Your task to perform on an android device: Clear the cart on target. Search for usb-c to usb-a on target, select the first entry, add it to the cart, then select checkout. Image 0: 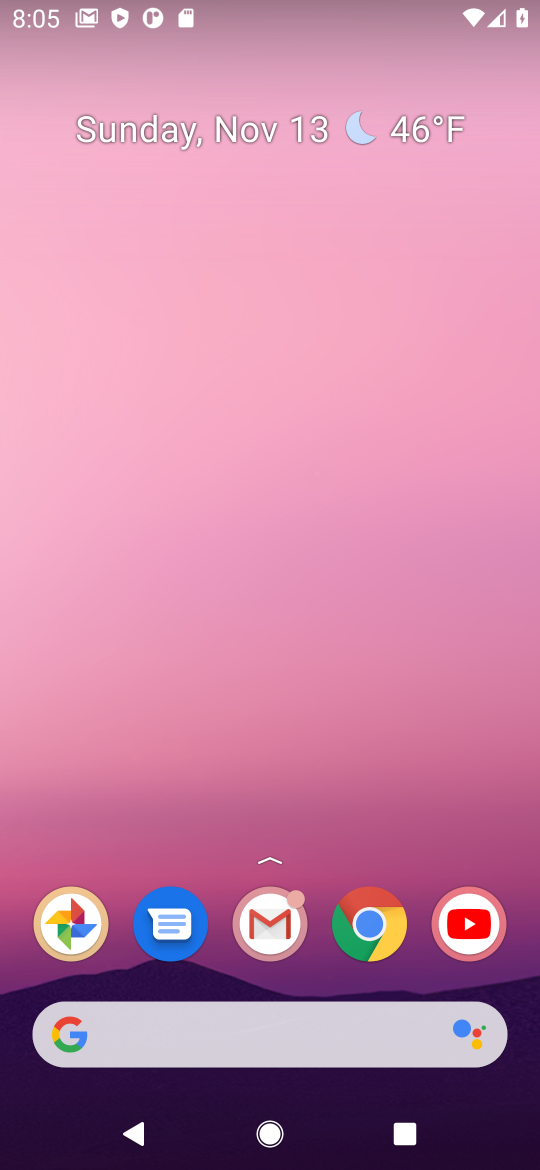
Step 0: click (358, 919)
Your task to perform on an android device: Clear the cart on target. Search for usb-c to usb-a on target, select the first entry, add it to the cart, then select checkout. Image 1: 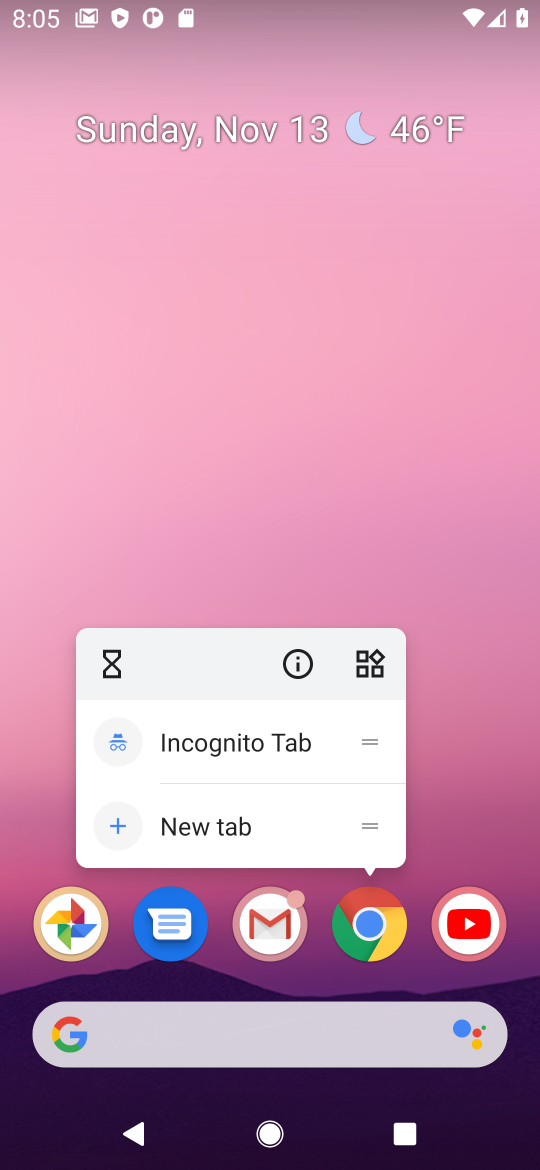
Step 1: click (364, 923)
Your task to perform on an android device: Clear the cart on target. Search for usb-c to usb-a on target, select the first entry, add it to the cart, then select checkout. Image 2: 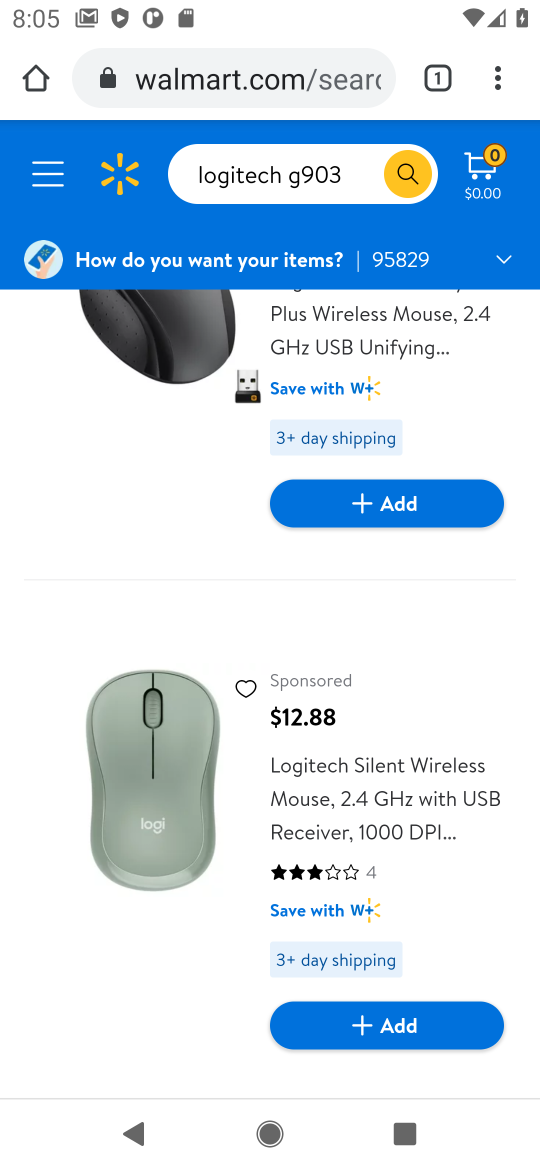
Step 2: click (297, 75)
Your task to perform on an android device: Clear the cart on target. Search for usb-c to usb-a on target, select the first entry, add it to the cart, then select checkout. Image 3: 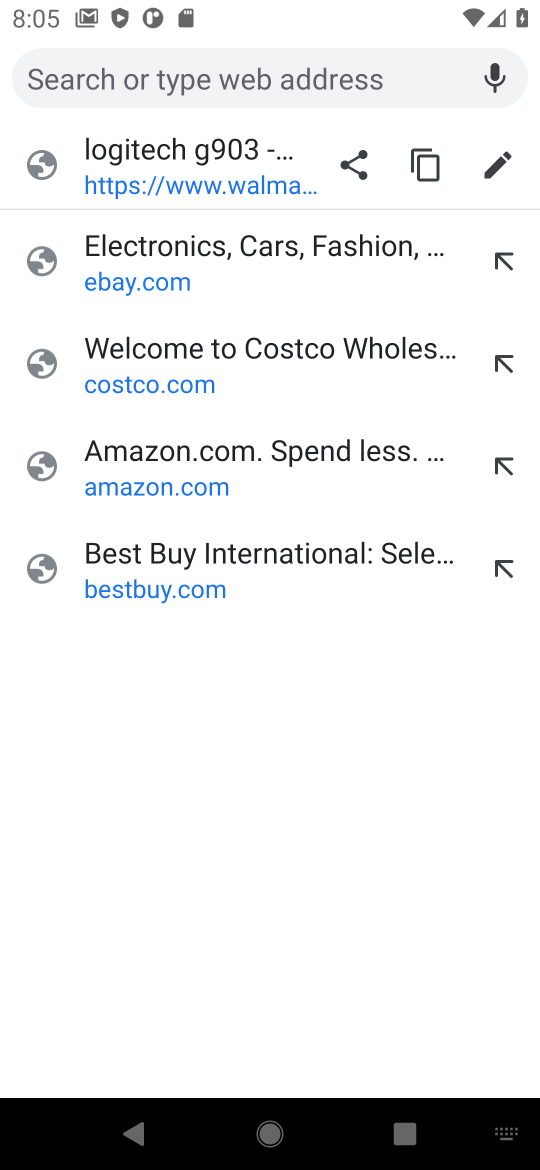
Step 3: type " target"
Your task to perform on an android device: Clear the cart on target. Search for usb-c to usb-a on target, select the first entry, add it to the cart, then select checkout. Image 4: 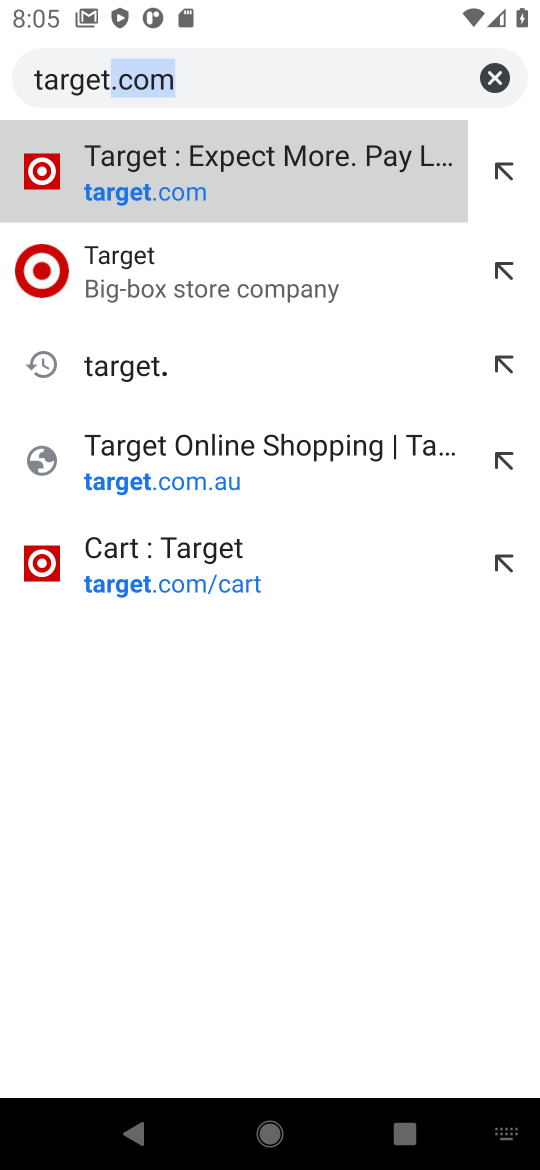
Step 4: press enter
Your task to perform on an android device: Clear the cart on target. Search for usb-c to usb-a on target, select the first entry, add it to the cart, then select checkout. Image 5: 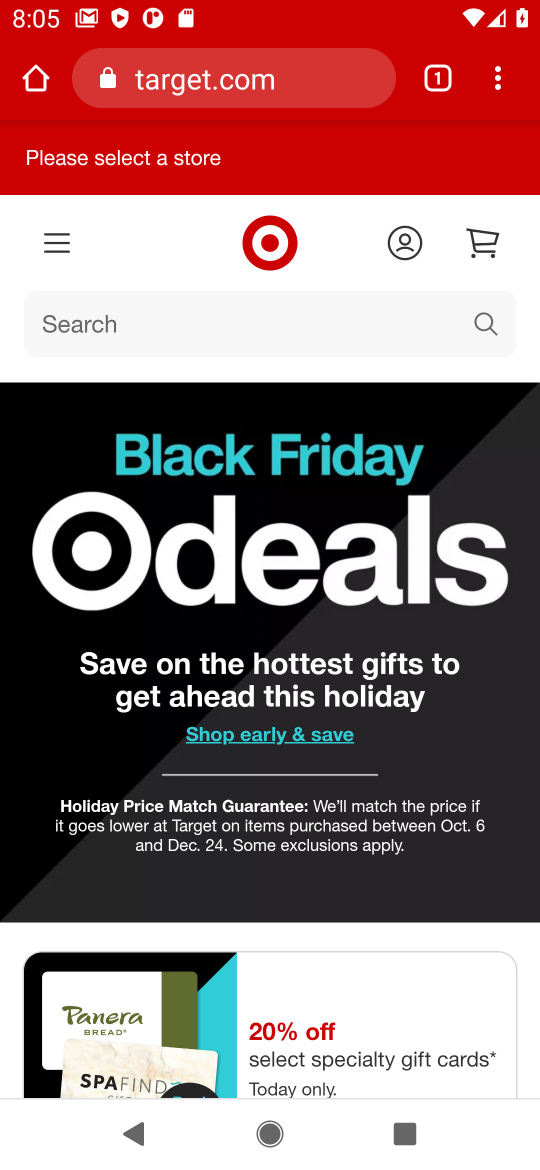
Step 5: drag from (364, 995) to (472, 319)
Your task to perform on an android device: Clear the cart on target. Search for usb-c to usb-a on target, select the first entry, add it to the cart, then select checkout. Image 6: 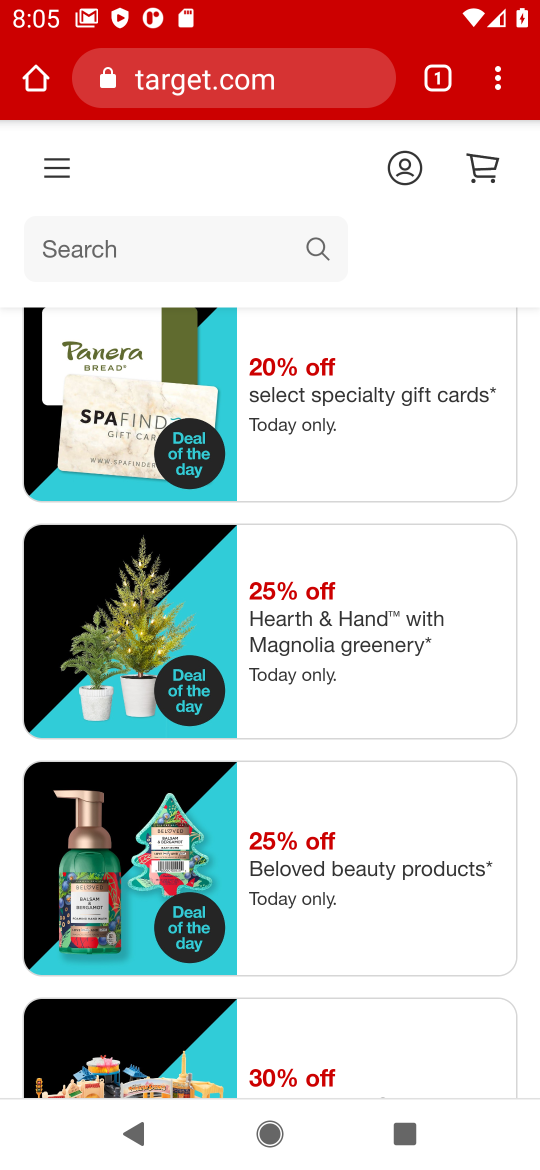
Step 6: drag from (457, 338) to (309, 1142)
Your task to perform on an android device: Clear the cart on target. Search for usb-c to usb-a on target, select the first entry, add it to the cart, then select checkout. Image 7: 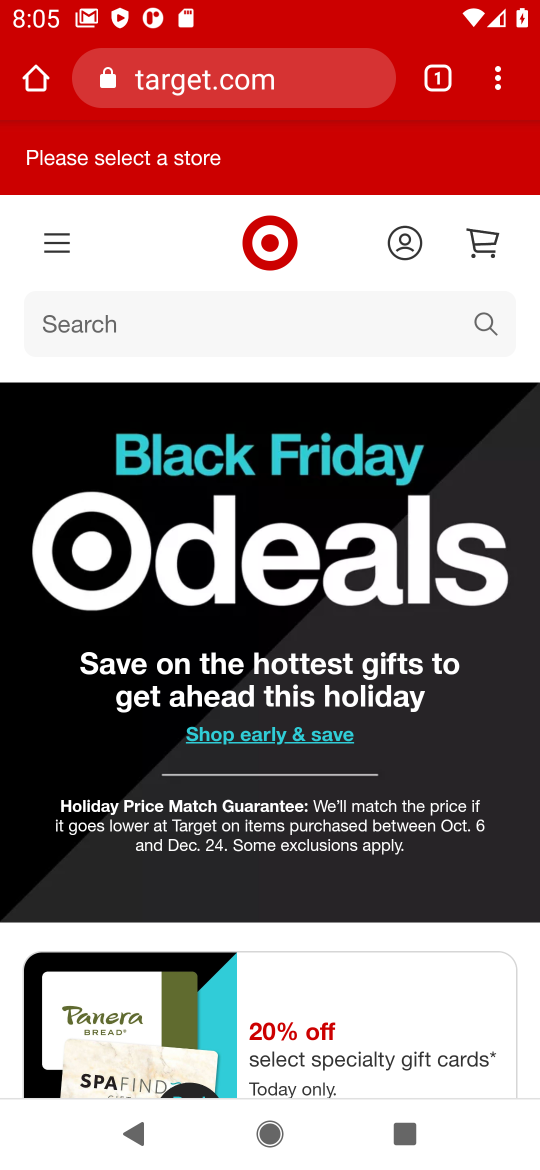
Step 7: click (206, 320)
Your task to perform on an android device: Clear the cart on target. Search for usb-c to usb-a on target, select the first entry, add it to the cart, then select checkout. Image 8: 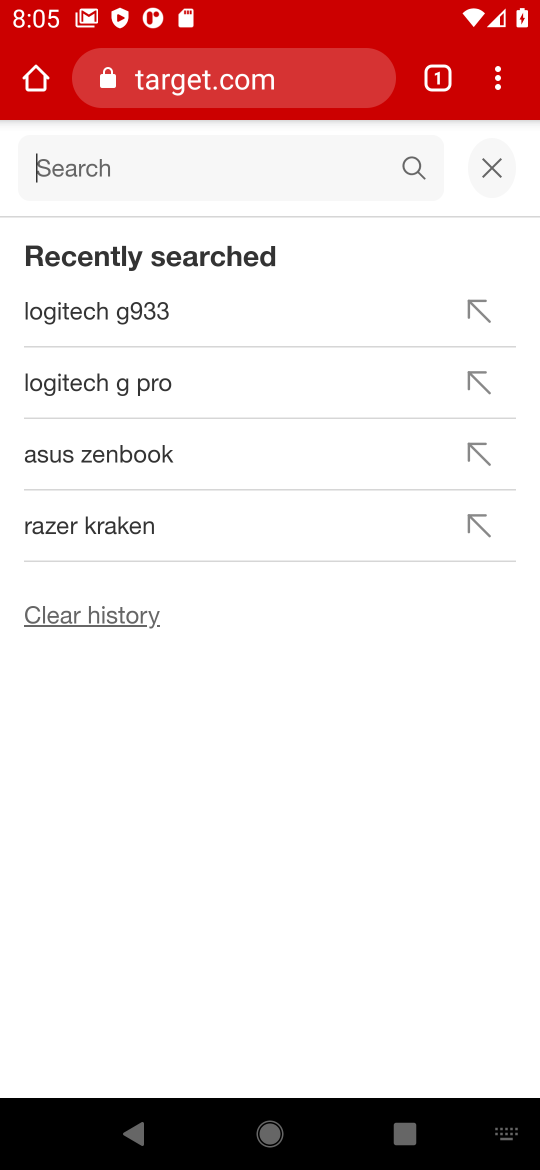
Step 8: type " usb-c to usb-a "
Your task to perform on an android device: Clear the cart on target. Search for usb-c to usb-a on target, select the first entry, add it to the cart, then select checkout. Image 9: 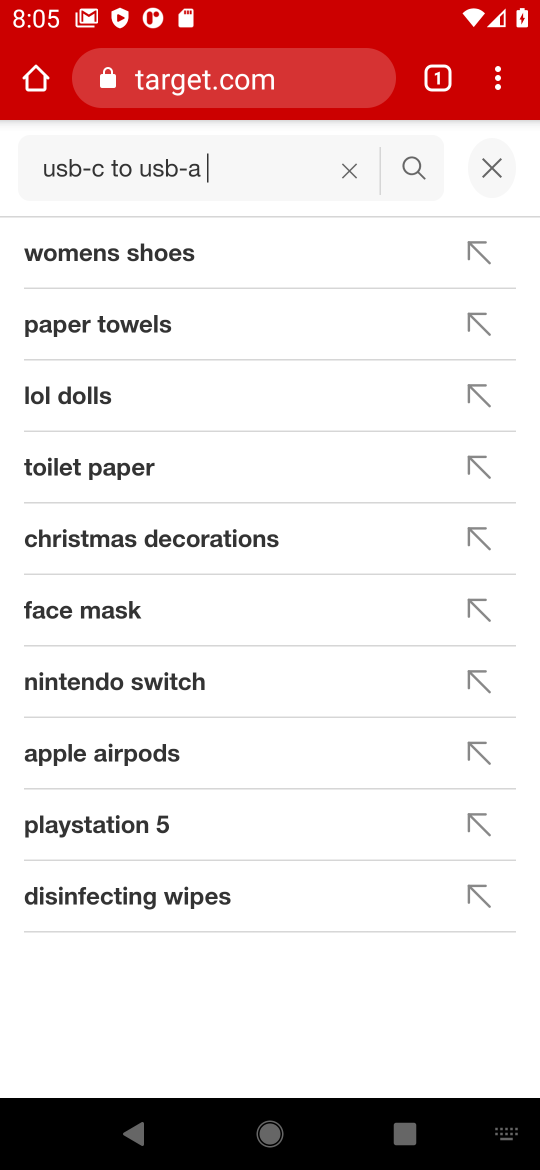
Step 9: press enter
Your task to perform on an android device: Clear the cart on target. Search for usb-c to usb-a on target, select the first entry, add it to the cart, then select checkout. Image 10: 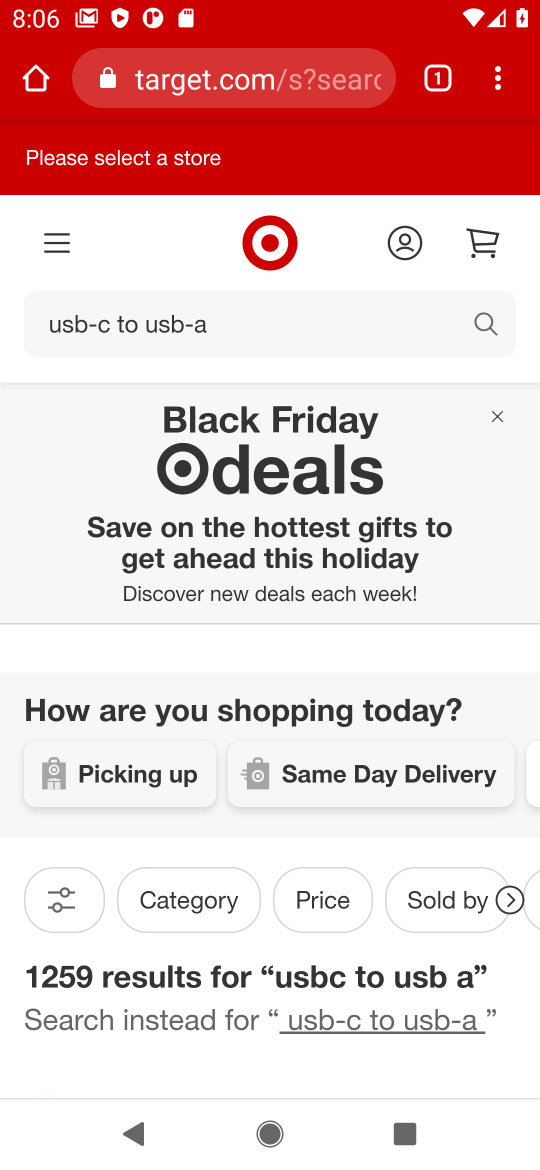
Step 10: drag from (236, 1034) to (363, 484)
Your task to perform on an android device: Clear the cart on target. Search for usb-c to usb-a on target, select the first entry, add it to the cart, then select checkout. Image 11: 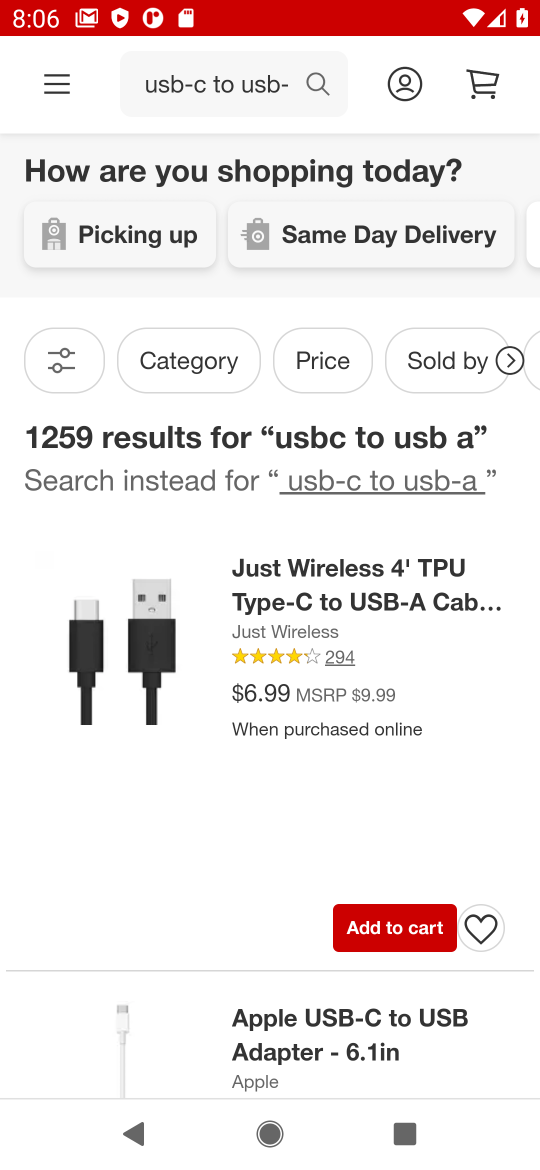
Step 11: click (339, 614)
Your task to perform on an android device: Clear the cart on target. Search for usb-c to usb-a on target, select the first entry, add it to the cart, then select checkout. Image 12: 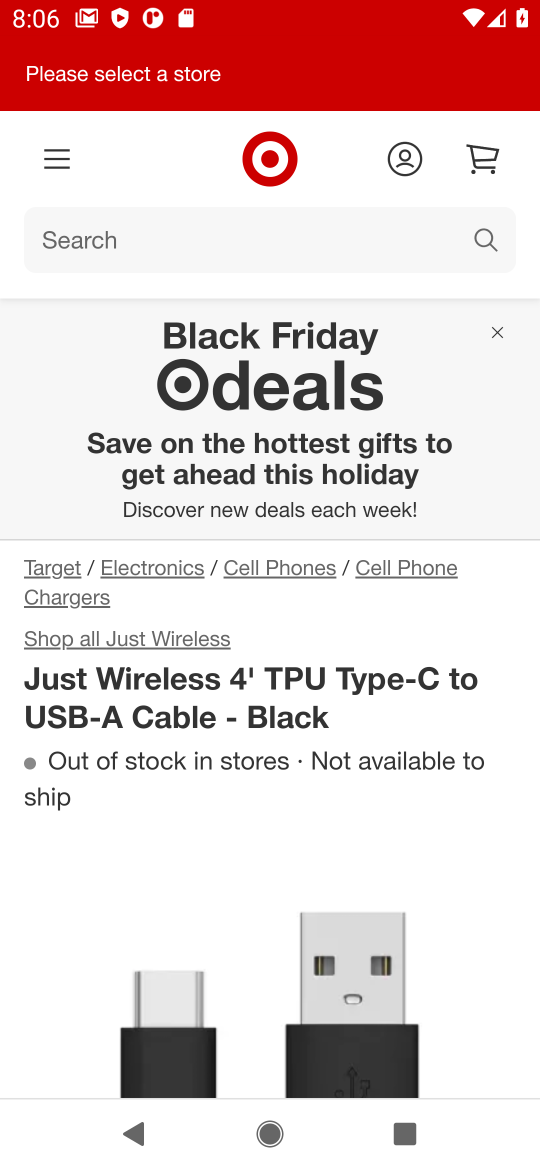
Step 12: drag from (235, 935) to (503, 296)
Your task to perform on an android device: Clear the cart on target. Search for usb-c to usb-a on target, select the first entry, add it to the cart, then select checkout. Image 13: 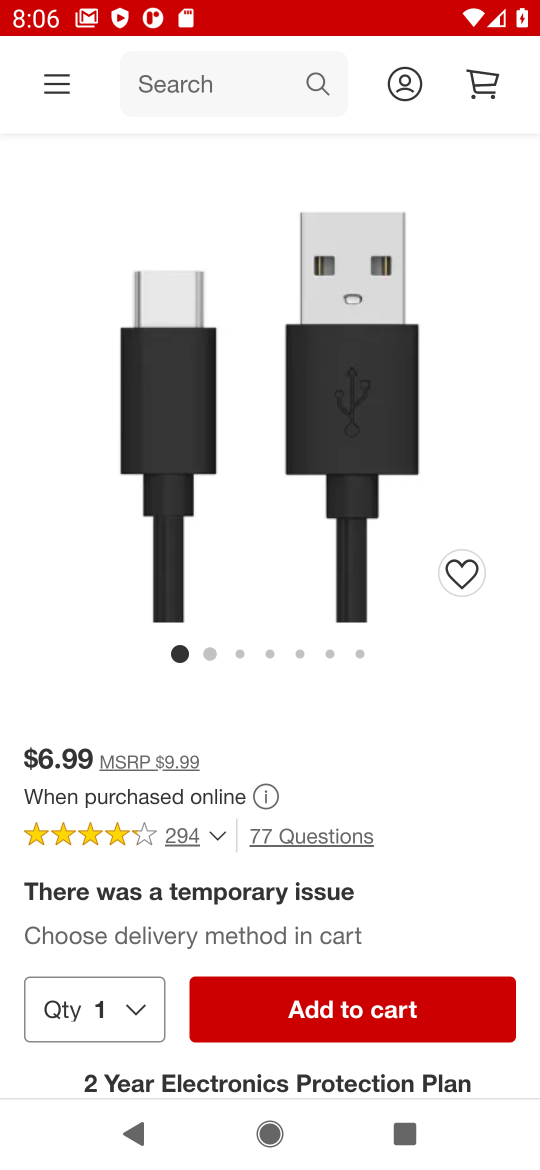
Step 13: click (354, 1015)
Your task to perform on an android device: Clear the cart on target. Search for usb-c to usb-a on target, select the first entry, add it to the cart, then select checkout. Image 14: 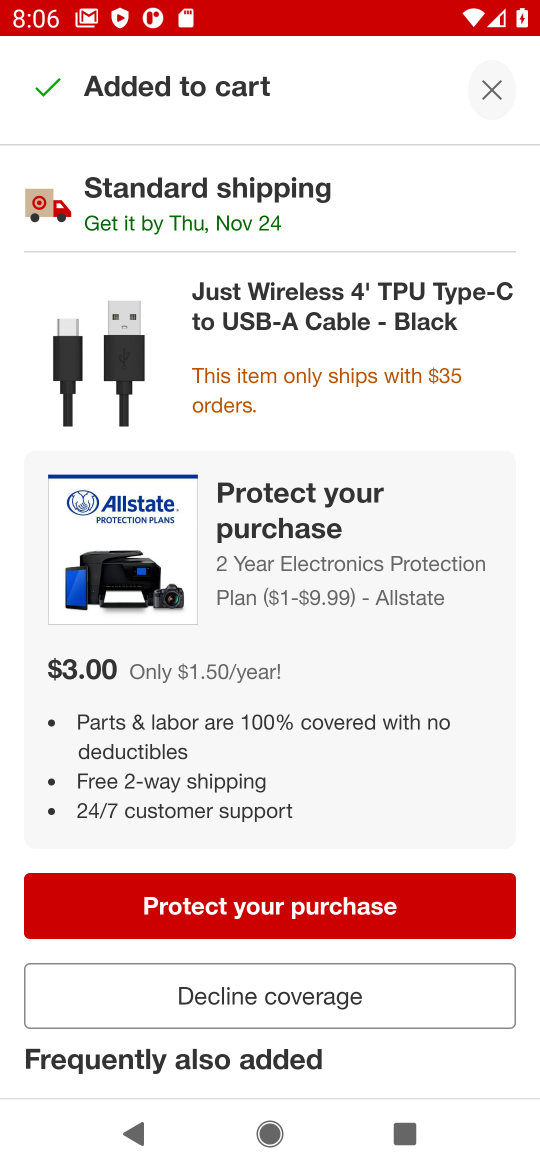
Step 14: click (312, 991)
Your task to perform on an android device: Clear the cart on target. Search for usb-c to usb-a on target, select the first entry, add it to the cart, then select checkout. Image 15: 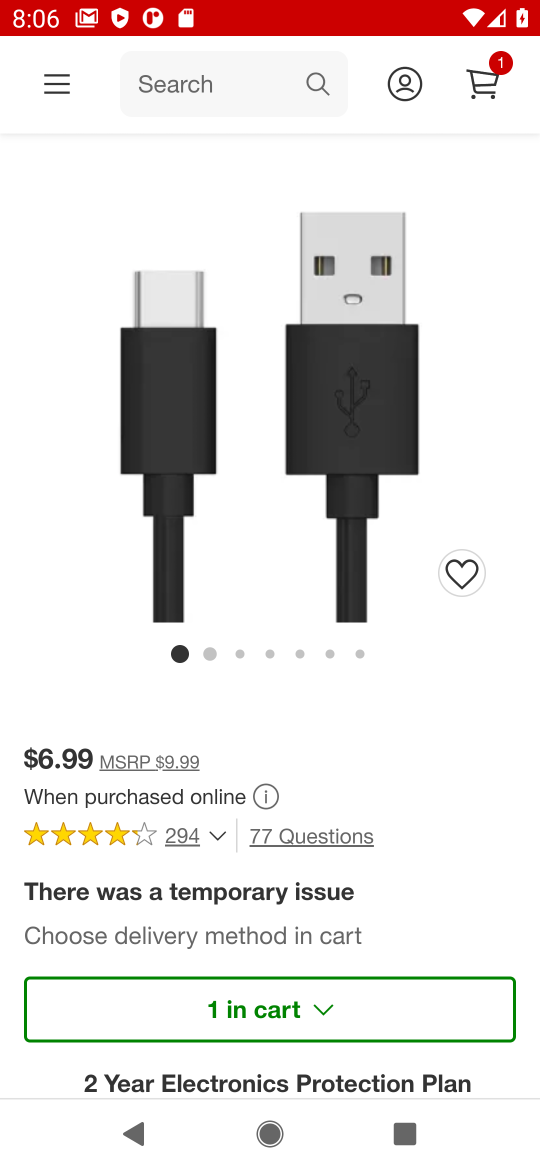
Step 15: click (497, 63)
Your task to perform on an android device: Clear the cart on target. Search for usb-c to usb-a on target, select the first entry, add it to the cart, then select checkout. Image 16: 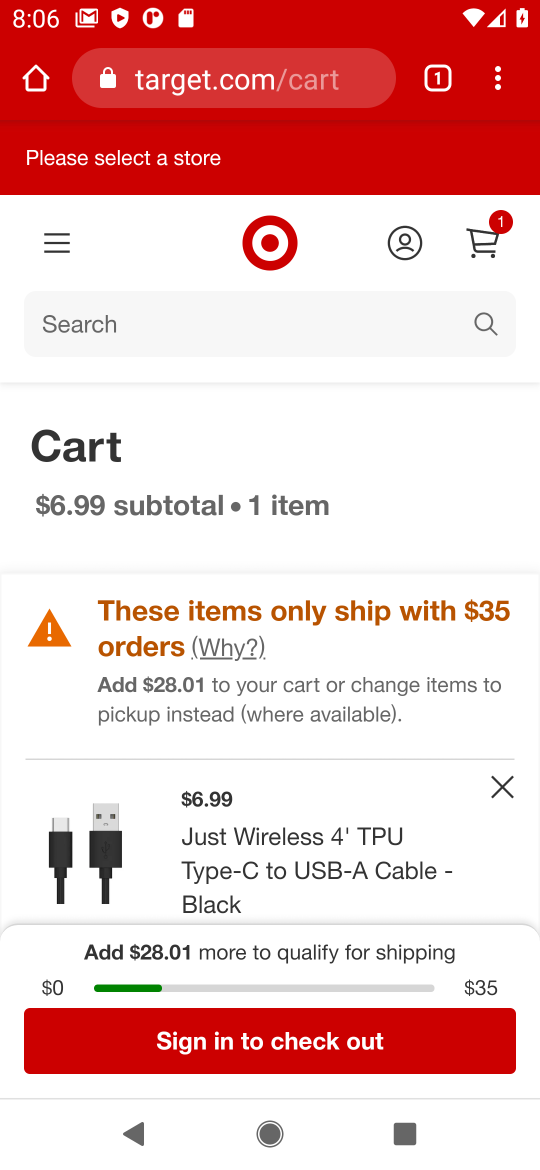
Step 16: click (297, 1037)
Your task to perform on an android device: Clear the cart on target. Search for usb-c to usb-a on target, select the first entry, add it to the cart, then select checkout. Image 17: 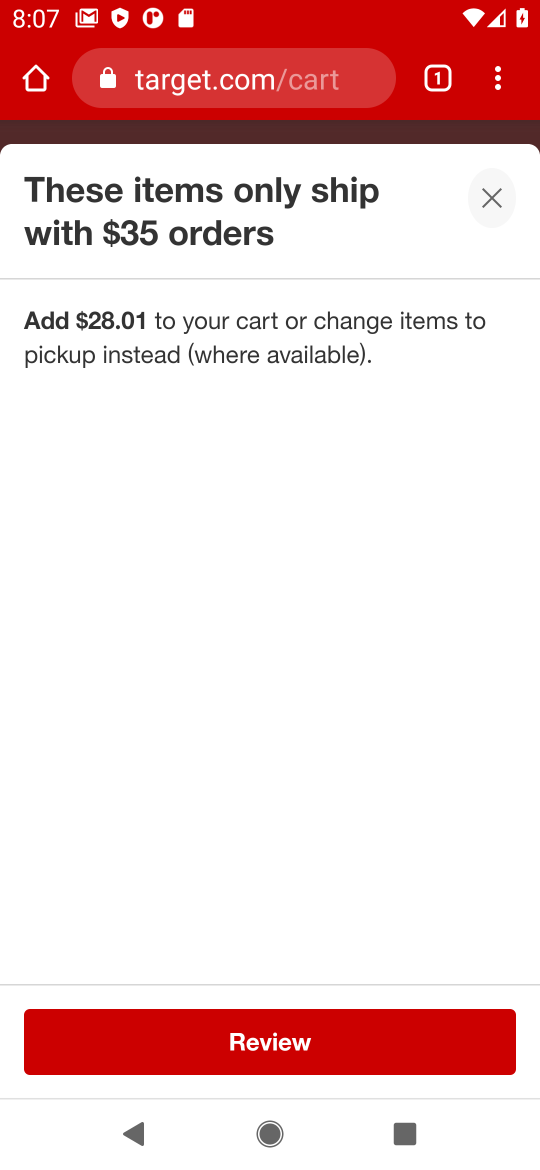
Step 17: task complete